Your task to perform on an android device: Show me popular videos on Youtube Image 0: 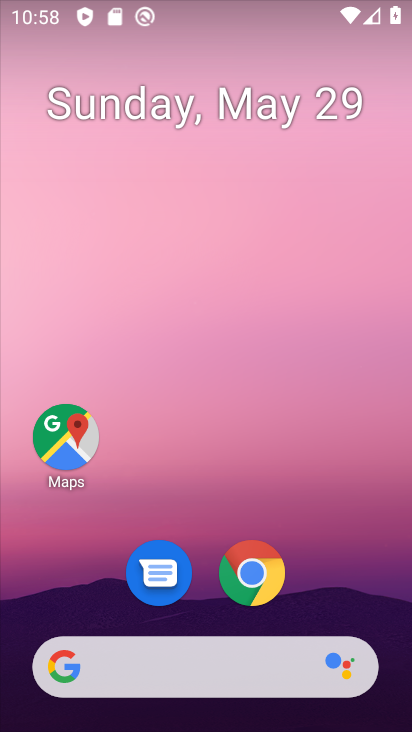
Step 0: drag from (382, 578) to (329, 117)
Your task to perform on an android device: Show me popular videos on Youtube Image 1: 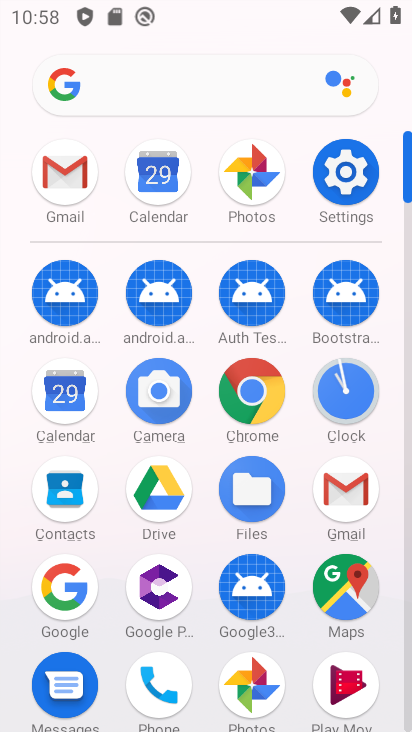
Step 1: drag from (197, 666) to (193, 166)
Your task to perform on an android device: Show me popular videos on Youtube Image 2: 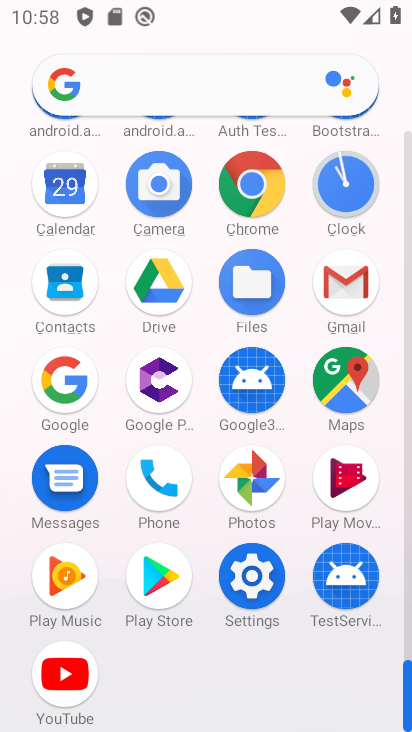
Step 2: click (62, 660)
Your task to perform on an android device: Show me popular videos on Youtube Image 3: 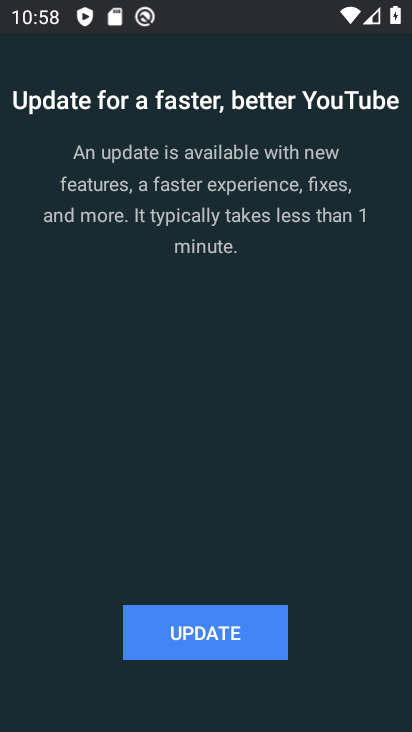
Step 3: click (210, 640)
Your task to perform on an android device: Show me popular videos on Youtube Image 4: 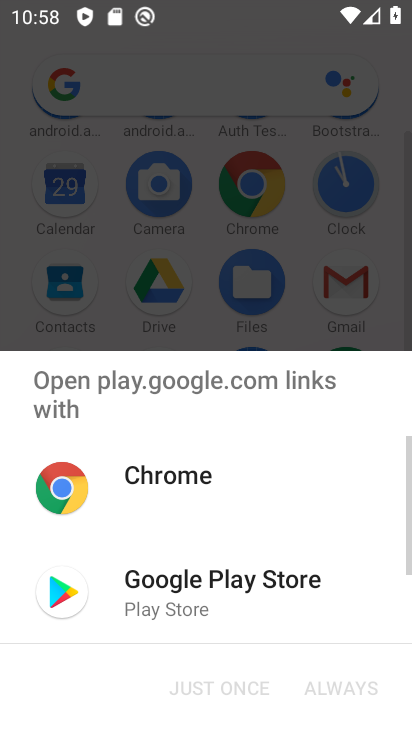
Step 4: click (208, 599)
Your task to perform on an android device: Show me popular videos on Youtube Image 5: 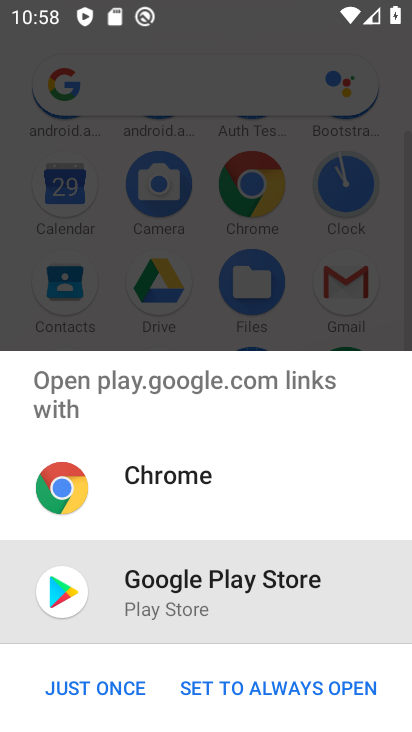
Step 5: click (100, 692)
Your task to perform on an android device: Show me popular videos on Youtube Image 6: 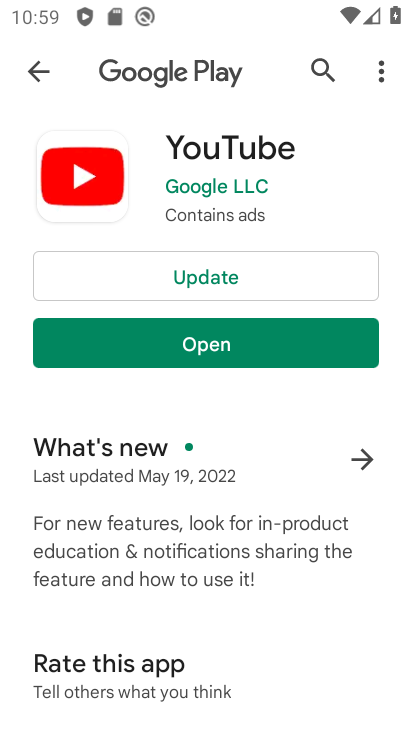
Step 6: click (234, 276)
Your task to perform on an android device: Show me popular videos on Youtube Image 7: 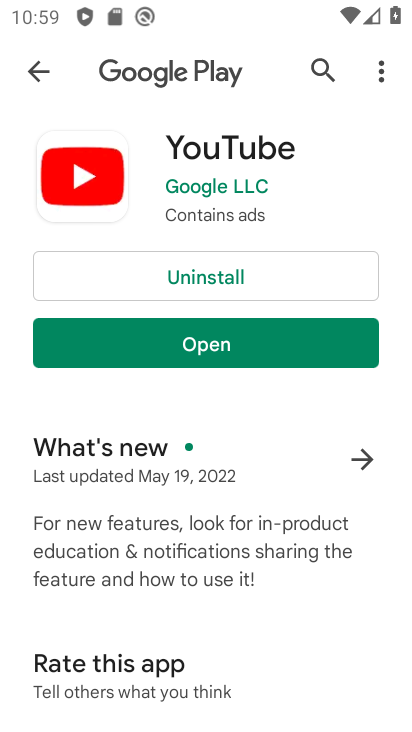
Step 7: click (188, 345)
Your task to perform on an android device: Show me popular videos on Youtube Image 8: 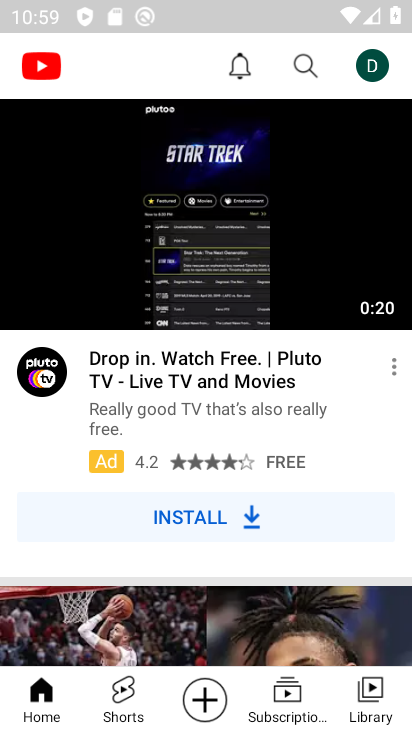
Step 8: drag from (33, 429) to (20, 692)
Your task to perform on an android device: Show me popular videos on Youtube Image 9: 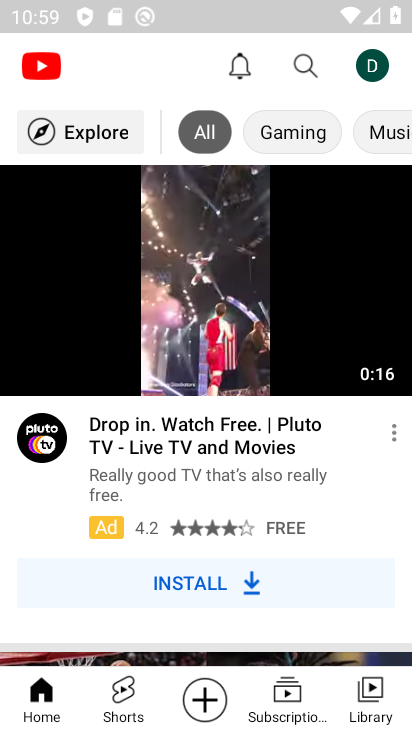
Step 9: click (77, 125)
Your task to perform on an android device: Show me popular videos on Youtube Image 10: 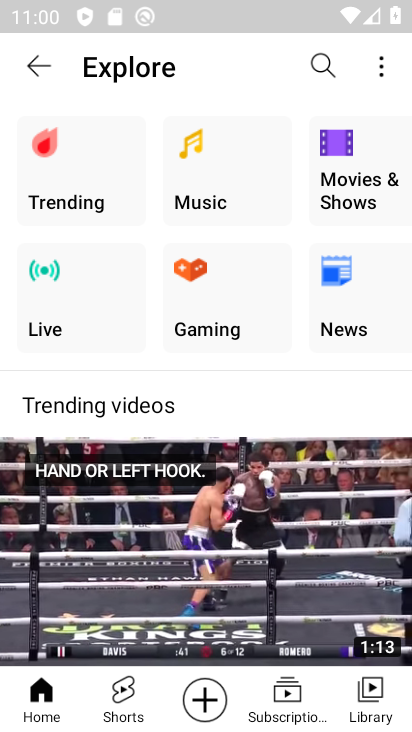
Step 10: click (65, 192)
Your task to perform on an android device: Show me popular videos on Youtube Image 11: 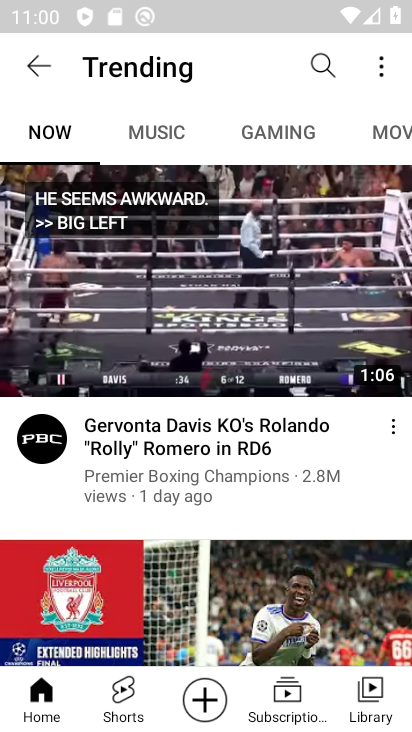
Step 11: task complete